Your task to perform on an android device: all mails in gmail Image 0: 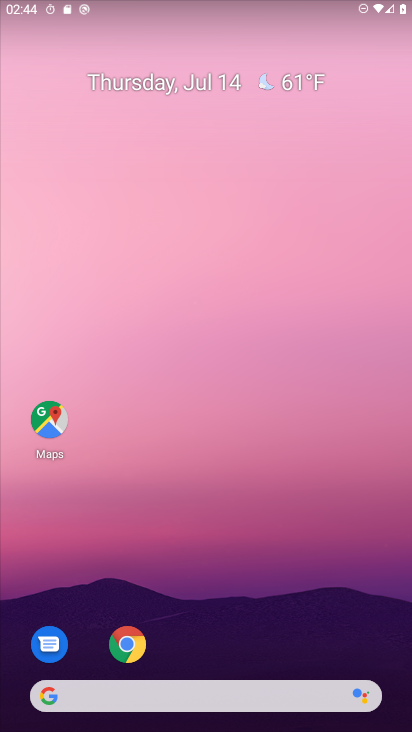
Step 0: drag from (234, 576) to (231, 24)
Your task to perform on an android device: all mails in gmail Image 1: 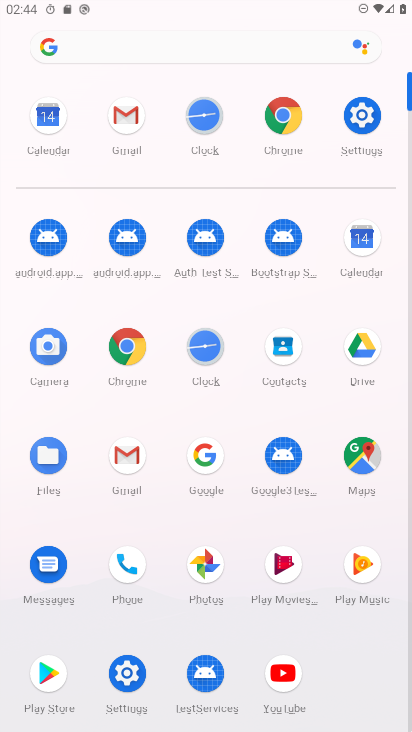
Step 1: click (125, 109)
Your task to perform on an android device: all mails in gmail Image 2: 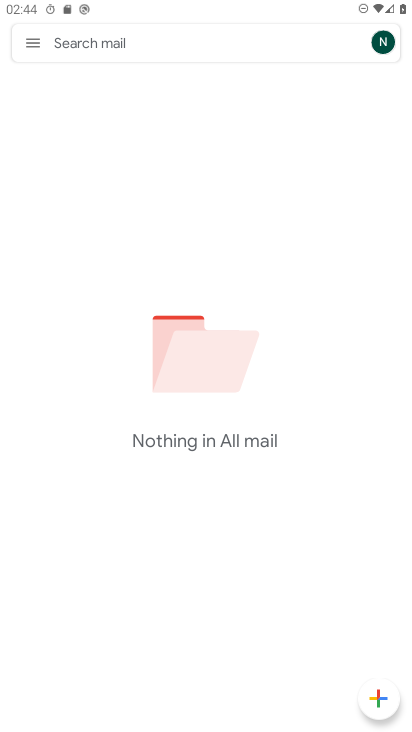
Step 2: task complete